Your task to perform on an android device: Search for sushi restaurants on Maps Image 0: 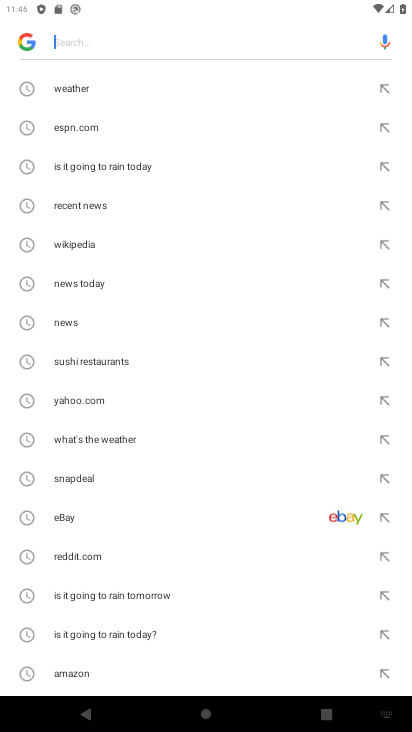
Step 0: press home button
Your task to perform on an android device: Search for sushi restaurants on Maps Image 1: 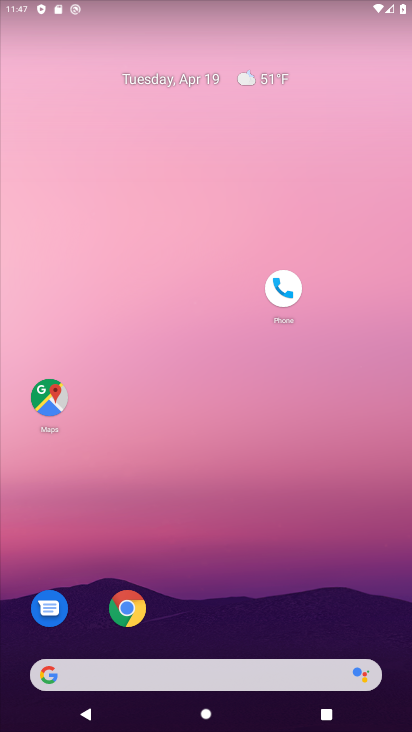
Step 1: click (48, 404)
Your task to perform on an android device: Search for sushi restaurants on Maps Image 2: 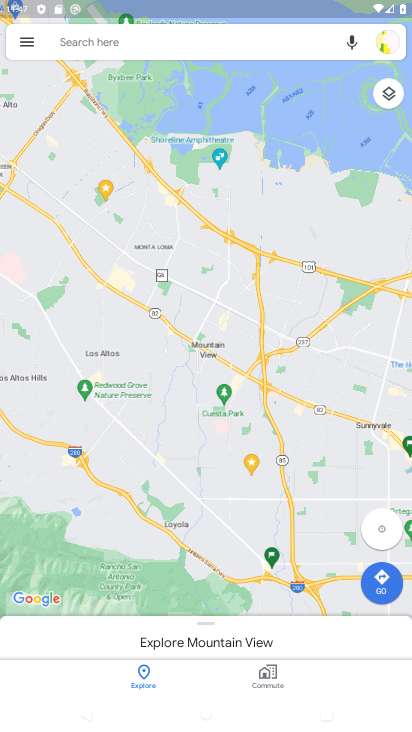
Step 2: click (106, 40)
Your task to perform on an android device: Search for sushi restaurants on Maps Image 3: 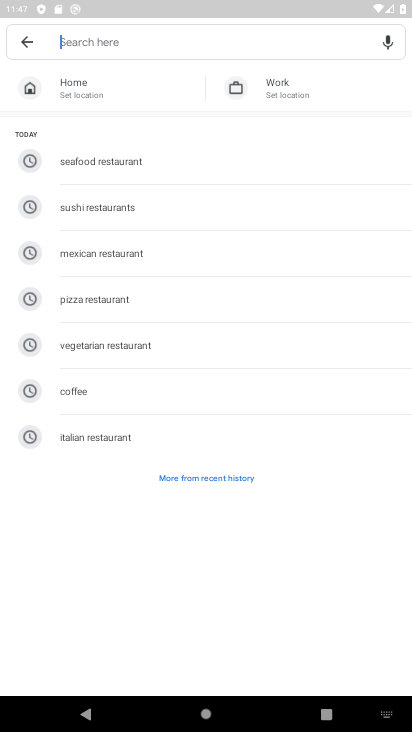
Step 3: type "sushi restaurants"
Your task to perform on an android device: Search for sushi restaurants on Maps Image 4: 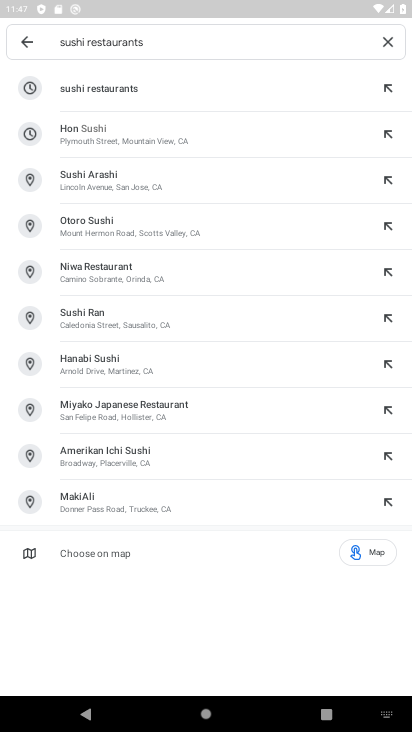
Step 4: click (103, 80)
Your task to perform on an android device: Search for sushi restaurants on Maps Image 5: 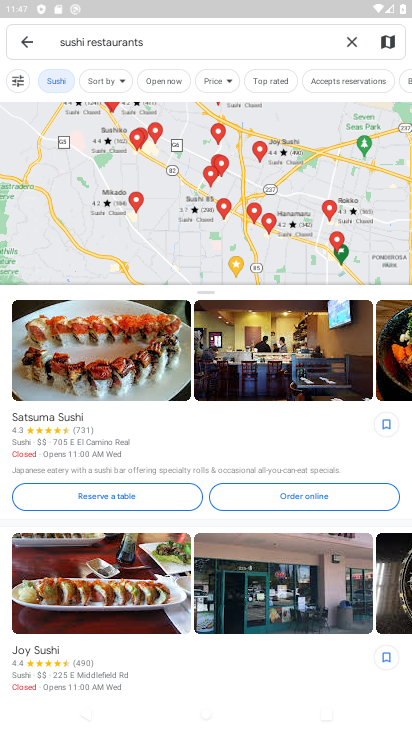
Step 5: task complete